Your task to perform on an android device: turn off sleep mode Image 0: 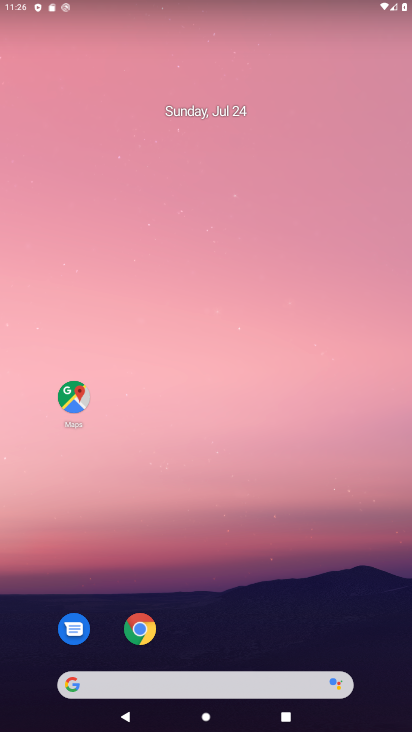
Step 0: drag from (213, 463) to (261, 270)
Your task to perform on an android device: turn off sleep mode Image 1: 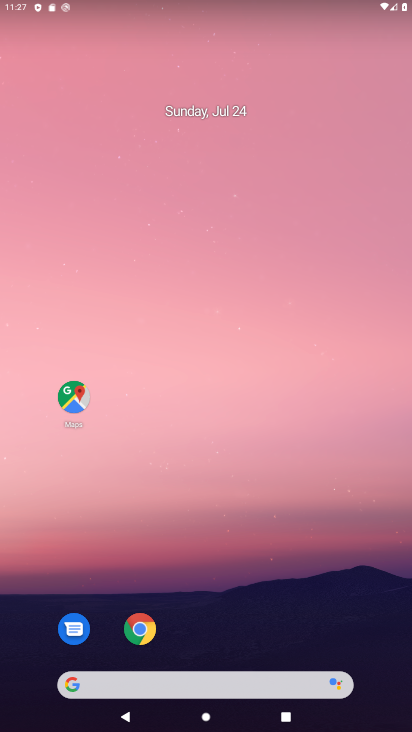
Step 1: drag from (226, 619) to (238, 297)
Your task to perform on an android device: turn off sleep mode Image 2: 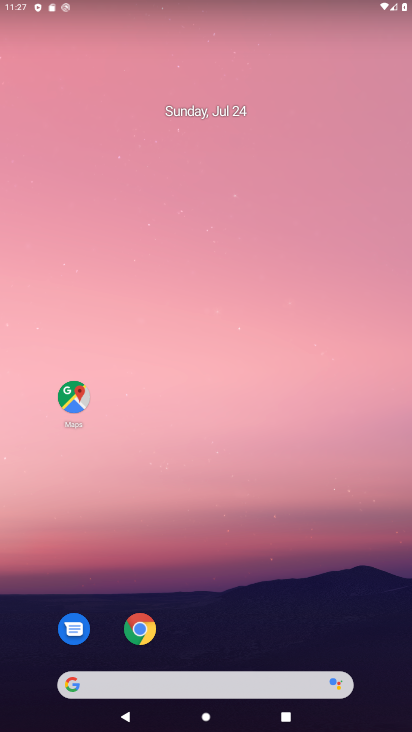
Step 2: drag from (242, 647) to (239, 115)
Your task to perform on an android device: turn off sleep mode Image 3: 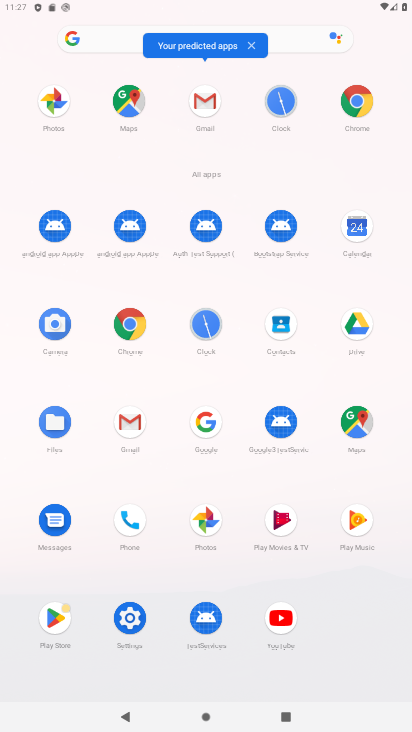
Step 3: click (130, 644)
Your task to perform on an android device: turn off sleep mode Image 4: 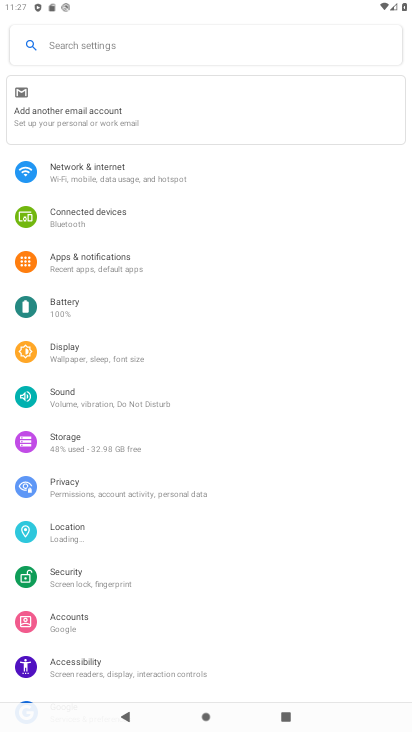
Step 4: click (140, 44)
Your task to perform on an android device: turn off sleep mode Image 5: 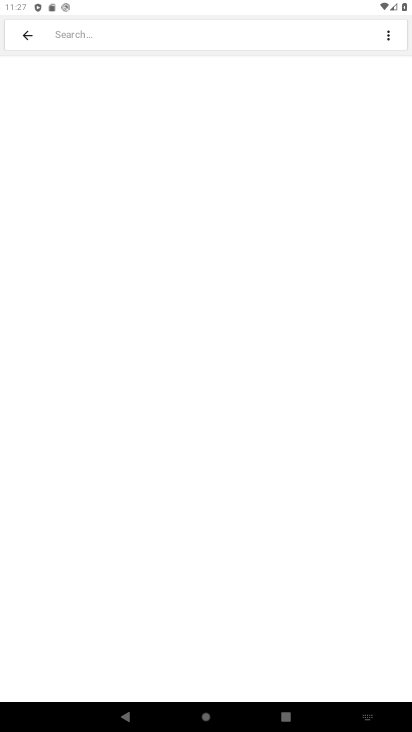
Step 5: type "sleep mode"
Your task to perform on an android device: turn off sleep mode Image 6: 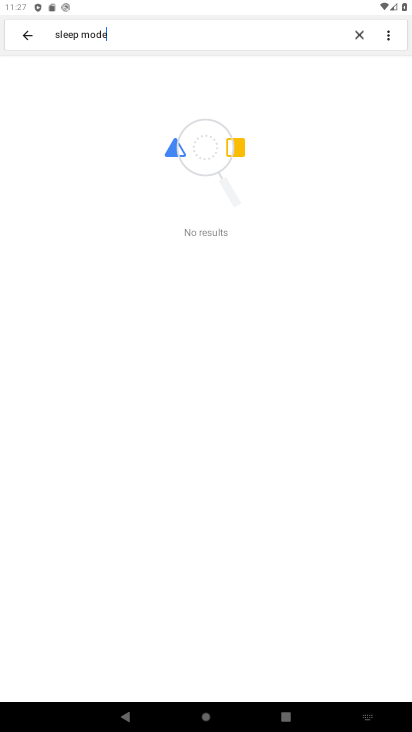
Step 6: task complete